Your task to perform on an android device: turn on bluetooth scan Image 0: 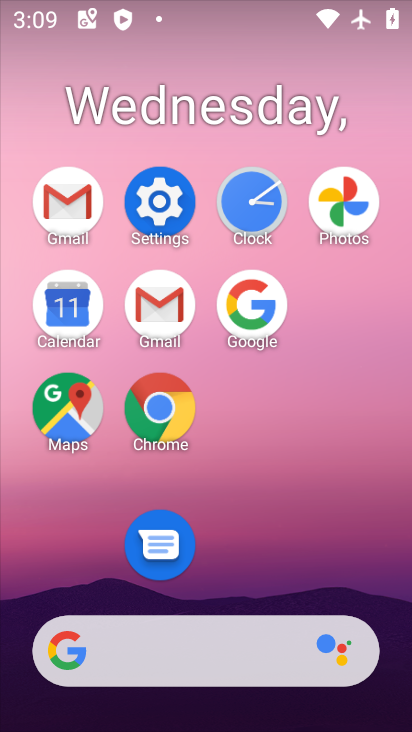
Step 0: click (163, 200)
Your task to perform on an android device: turn on bluetooth scan Image 1: 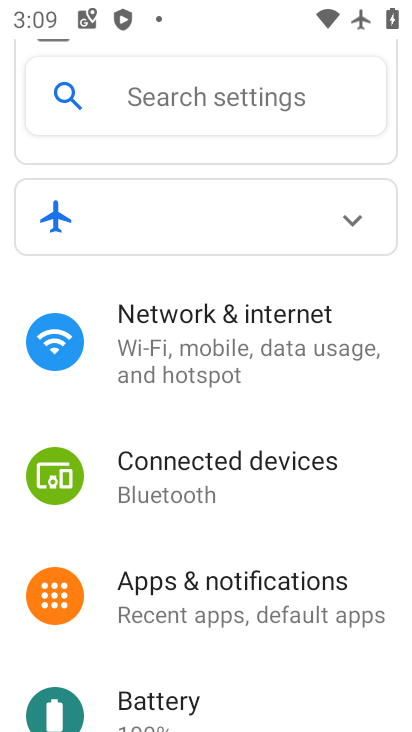
Step 1: drag from (210, 539) to (204, 221)
Your task to perform on an android device: turn on bluetooth scan Image 2: 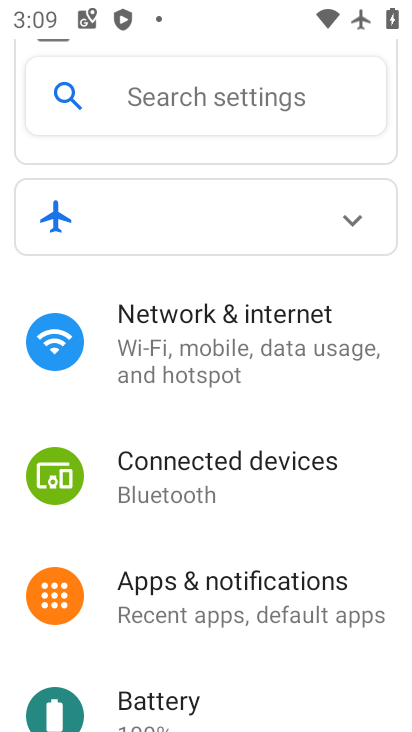
Step 2: drag from (246, 674) to (325, 173)
Your task to perform on an android device: turn on bluetooth scan Image 3: 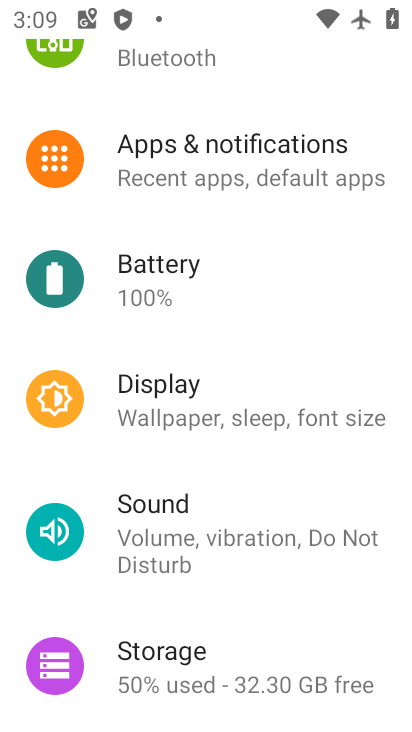
Step 3: drag from (218, 601) to (246, 215)
Your task to perform on an android device: turn on bluetooth scan Image 4: 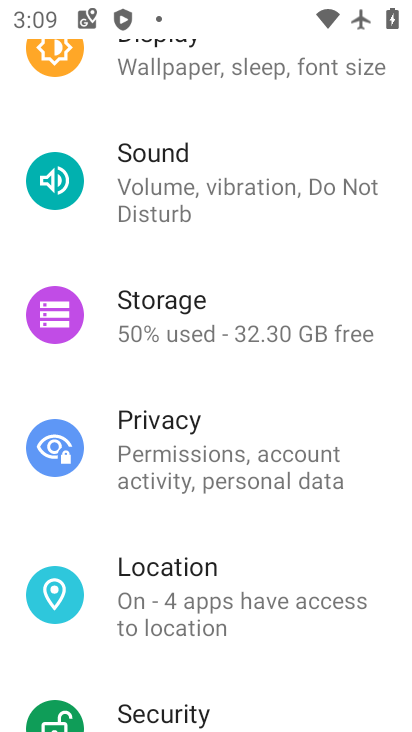
Step 4: click (276, 602)
Your task to perform on an android device: turn on bluetooth scan Image 5: 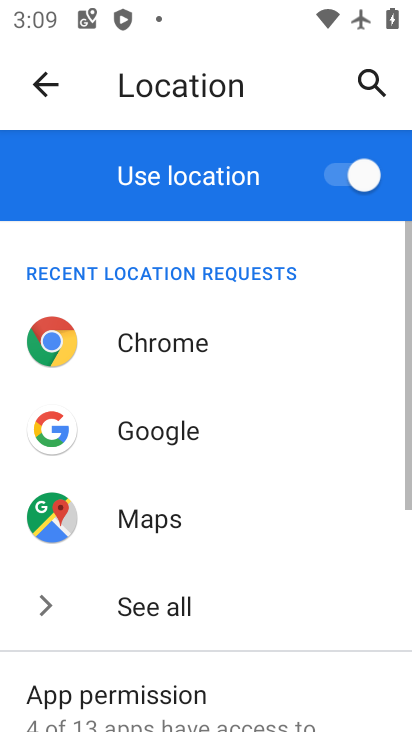
Step 5: drag from (276, 600) to (308, 206)
Your task to perform on an android device: turn on bluetooth scan Image 6: 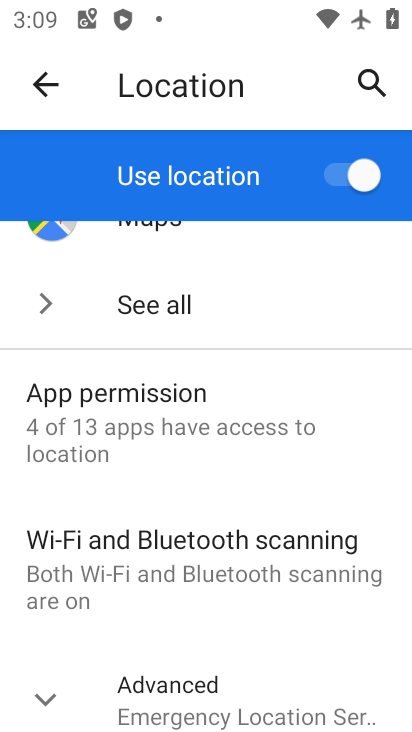
Step 6: click (227, 563)
Your task to perform on an android device: turn on bluetooth scan Image 7: 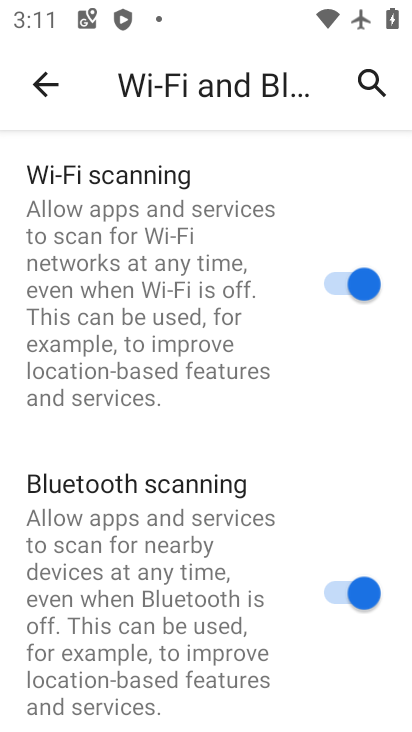
Step 7: task complete